Your task to perform on an android device: Open the calendar app, open the side menu, and click the "Day" option Image 0: 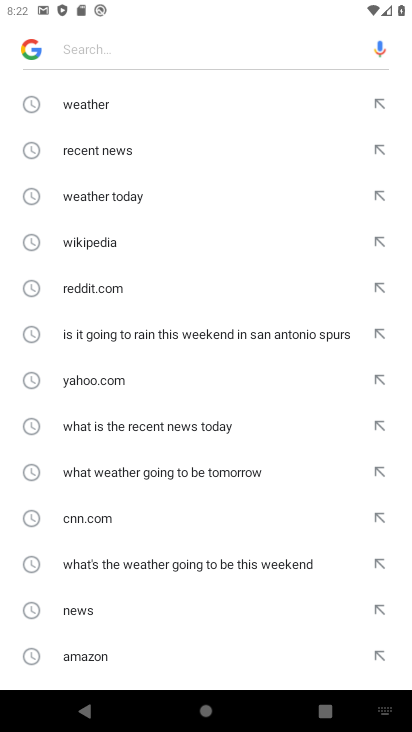
Step 0: press home button
Your task to perform on an android device: Open the calendar app, open the side menu, and click the "Day" option Image 1: 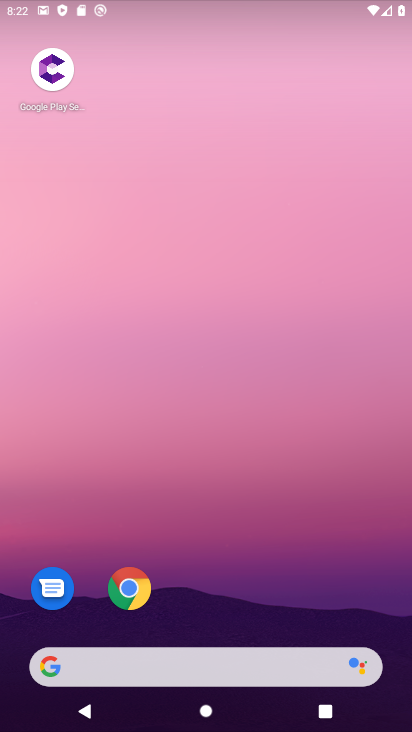
Step 1: drag from (297, 601) to (257, 37)
Your task to perform on an android device: Open the calendar app, open the side menu, and click the "Day" option Image 2: 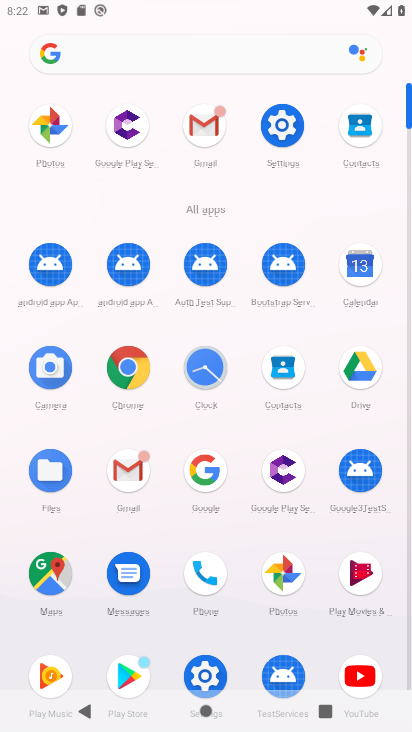
Step 2: click (361, 273)
Your task to perform on an android device: Open the calendar app, open the side menu, and click the "Day" option Image 3: 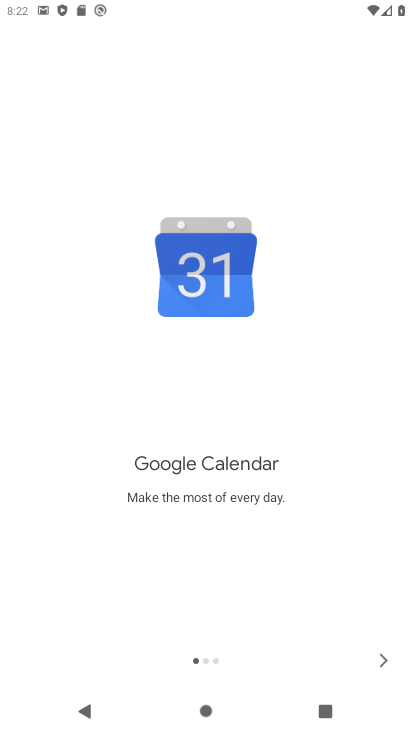
Step 3: click (374, 664)
Your task to perform on an android device: Open the calendar app, open the side menu, and click the "Day" option Image 4: 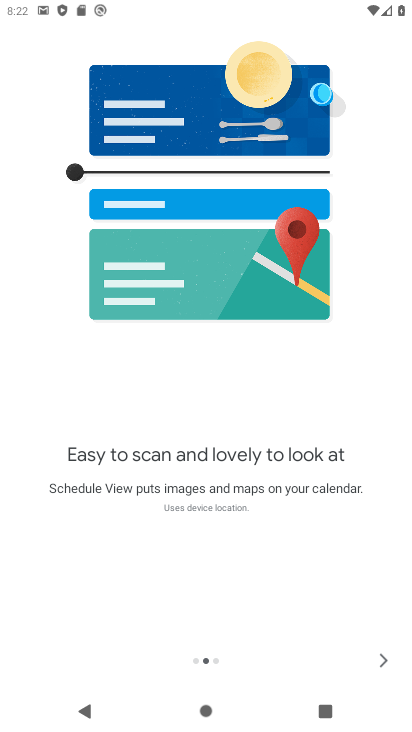
Step 4: click (374, 664)
Your task to perform on an android device: Open the calendar app, open the side menu, and click the "Day" option Image 5: 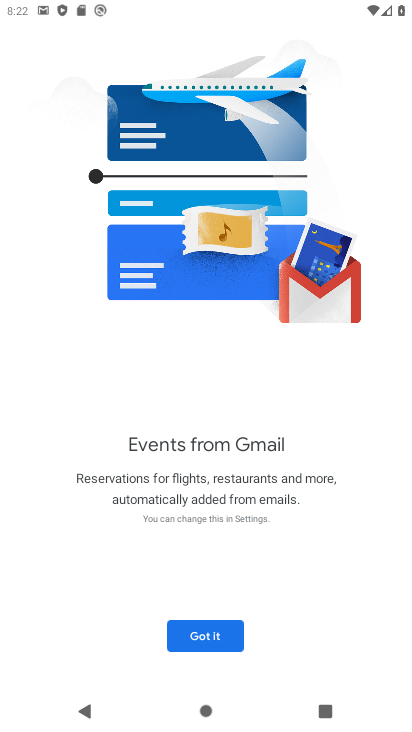
Step 5: click (206, 633)
Your task to perform on an android device: Open the calendar app, open the side menu, and click the "Day" option Image 6: 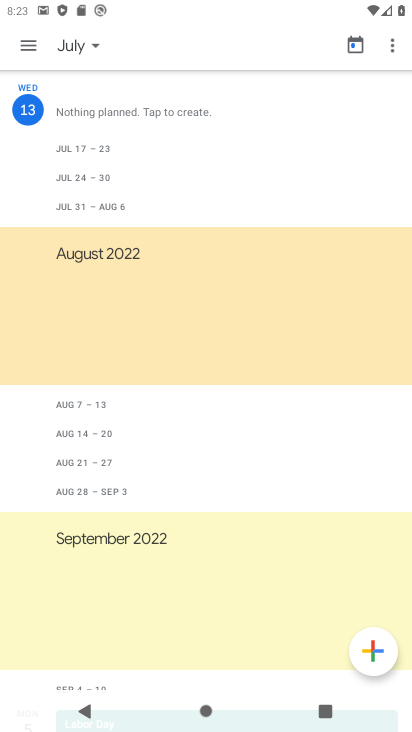
Step 6: click (33, 47)
Your task to perform on an android device: Open the calendar app, open the side menu, and click the "Day" option Image 7: 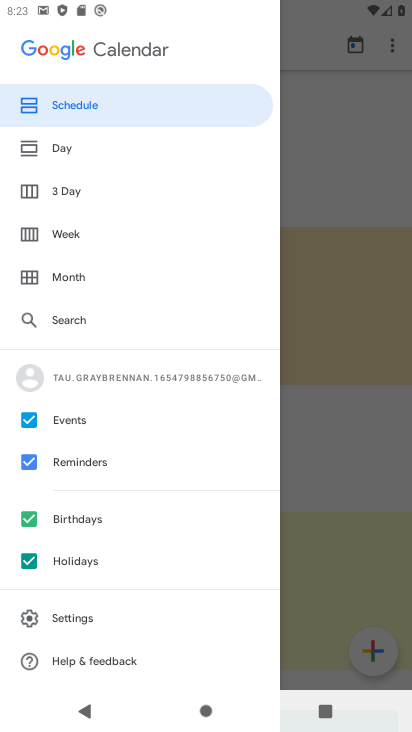
Step 7: click (98, 146)
Your task to perform on an android device: Open the calendar app, open the side menu, and click the "Day" option Image 8: 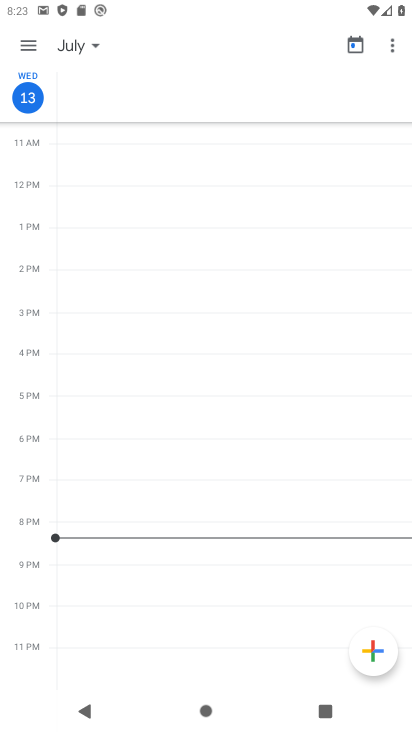
Step 8: task complete